Your task to perform on an android device: Go to location settings Image 0: 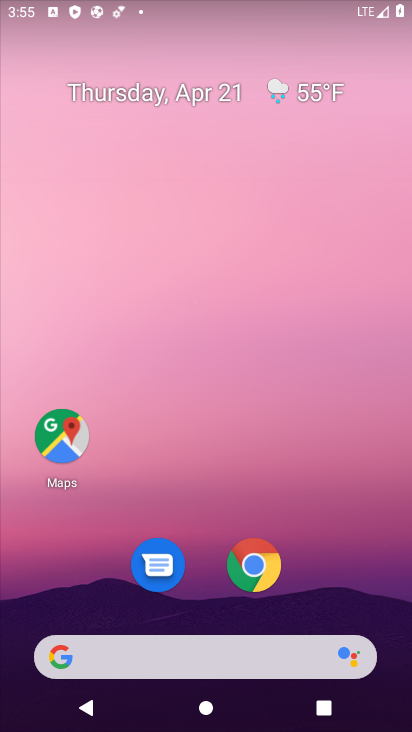
Step 0: drag from (342, 553) to (335, 83)
Your task to perform on an android device: Go to location settings Image 1: 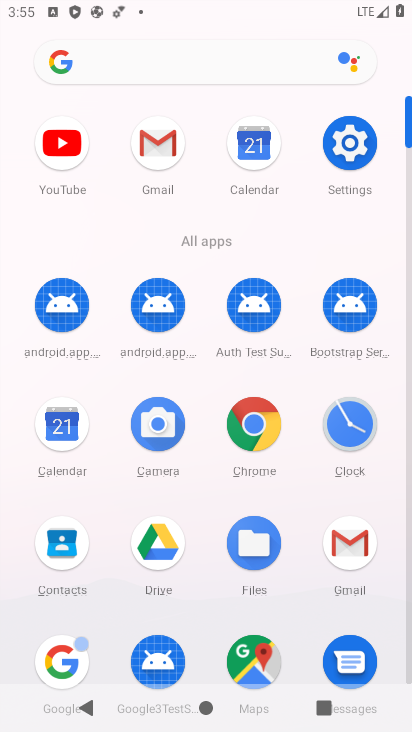
Step 1: click (345, 137)
Your task to perform on an android device: Go to location settings Image 2: 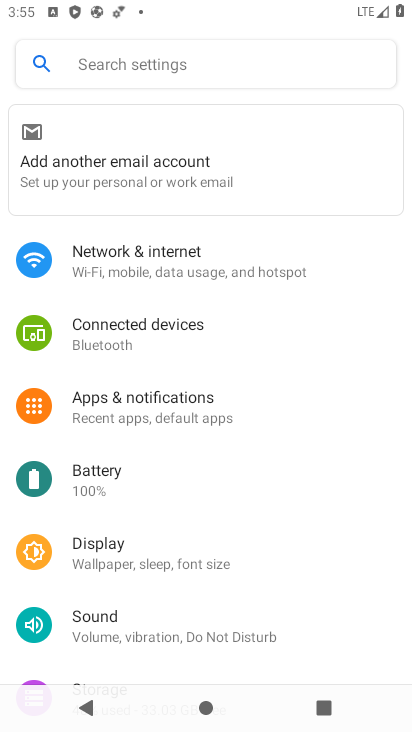
Step 2: drag from (284, 568) to (260, 128)
Your task to perform on an android device: Go to location settings Image 3: 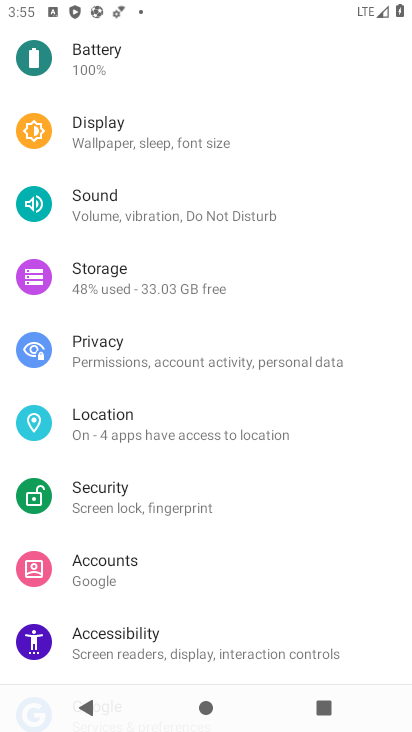
Step 3: click (190, 423)
Your task to perform on an android device: Go to location settings Image 4: 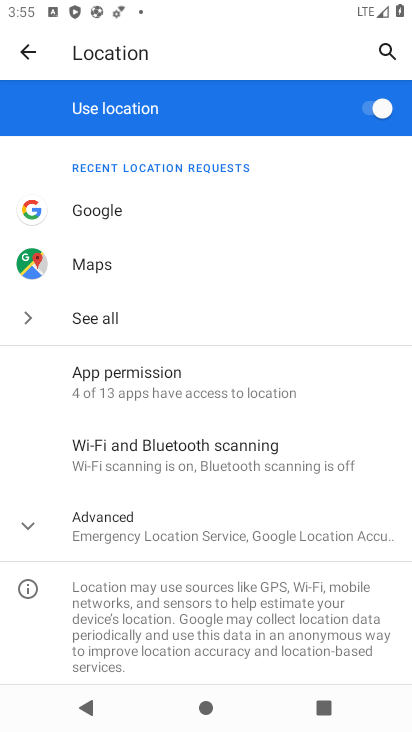
Step 4: task complete